Your task to perform on an android device: turn on the 24-hour format for clock Image 0: 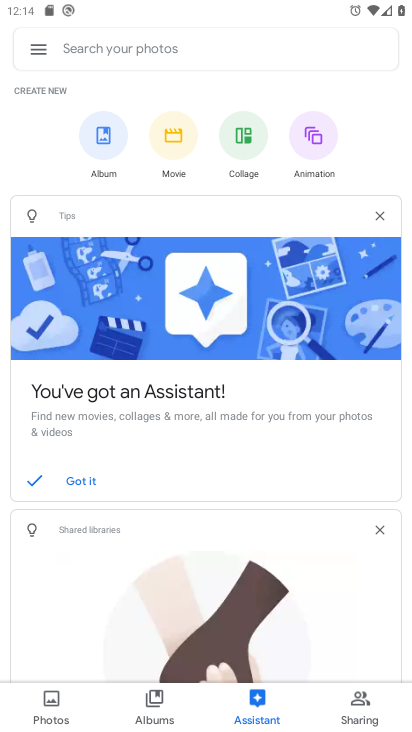
Step 0: press home button
Your task to perform on an android device: turn on the 24-hour format for clock Image 1: 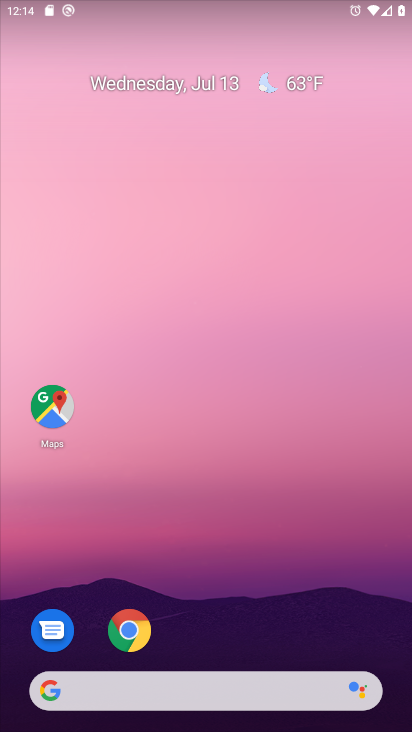
Step 1: drag from (244, 694) to (219, 72)
Your task to perform on an android device: turn on the 24-hour format for clock Image 2: 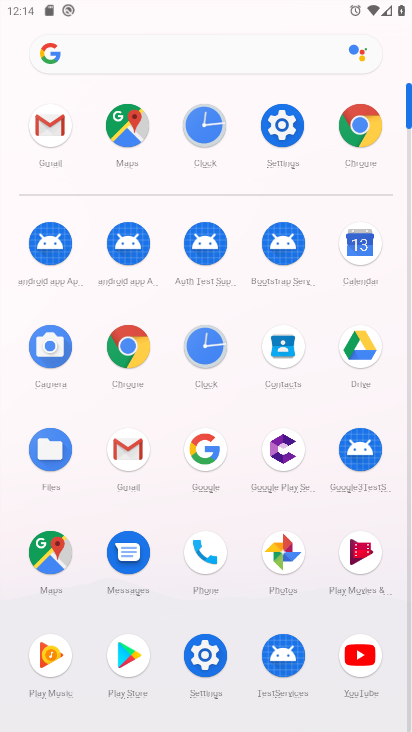
Step 2: click (289, 145)
Your task to perform on an android device: turn on the 24-hour format for clock Image 3: 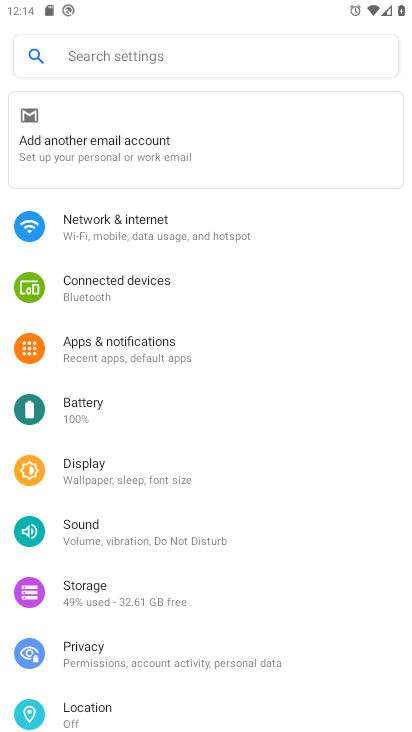
Step 3: drag from (178, 616) to (171, 62)
Your task to perform on an android device: turn on the 24-hour format for clock Image 4: 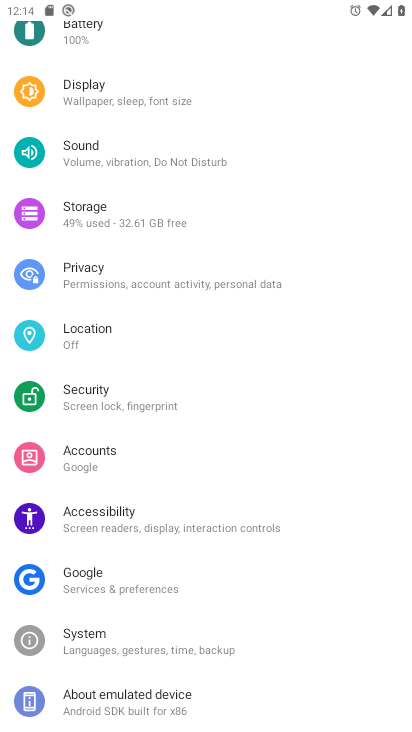
Step 4: click (144, 640)
Your task to perform on an android device: turn on the 24-hour format for clock Image 5: 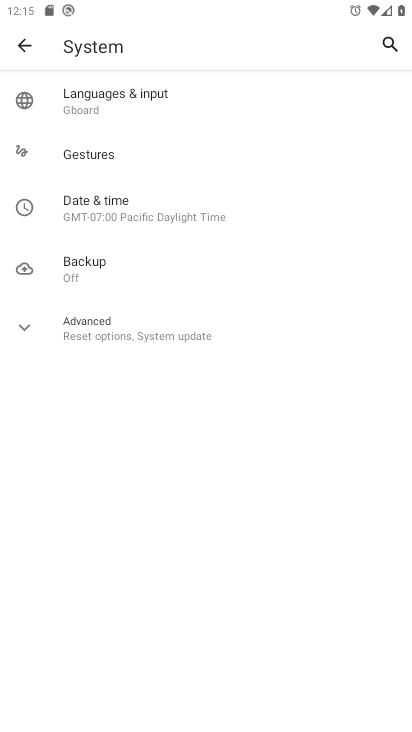
Step 5: click (142, 205)
Your task to perform on an android device: turn on the 24-hour format for clock Image 6: 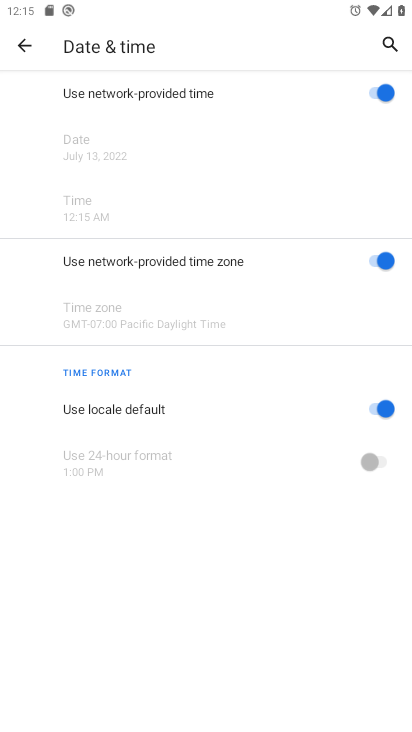
Step 6: click (375, 97)
Your task to perform on an android device: turn on the 24-hour format for clock Image 7: 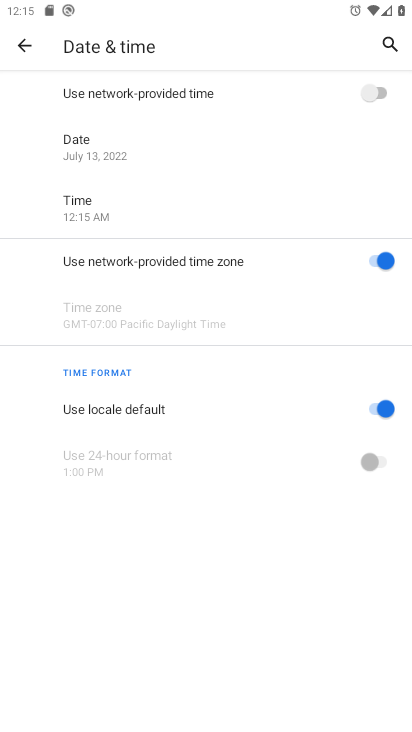
Step 7: click (377, 457)
Your task to perform on an android device: turn on the 24-hour format for clock Image 8: 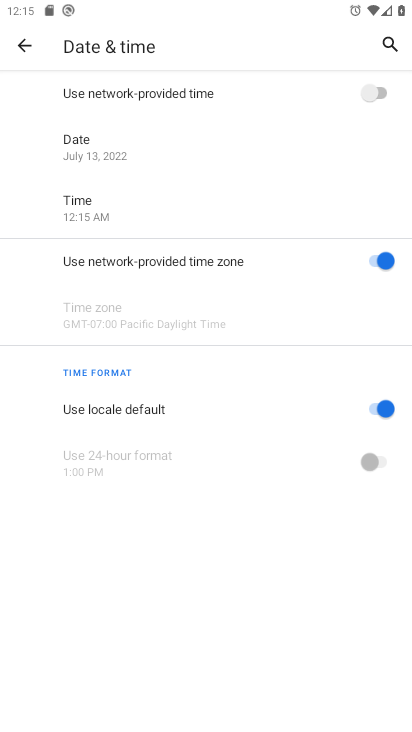
Step 8: click (381, 402)
Your task to perform on an android device: turn on the 24-hour format for clock Image 9: 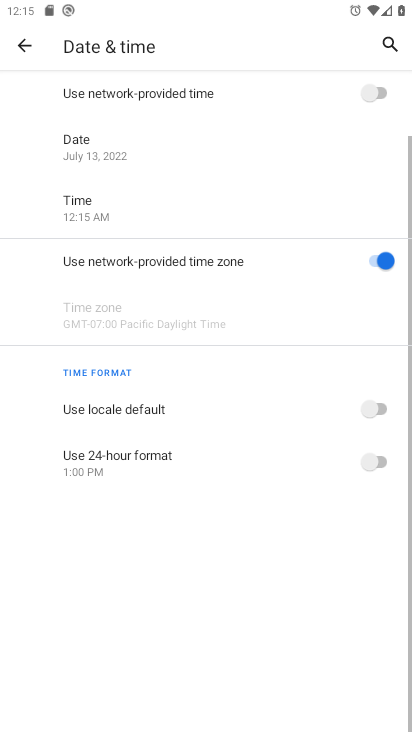
Step 9: click (378, 468)
Your task to perform on an android device: turn on the 24-hour format for clock Image 10: 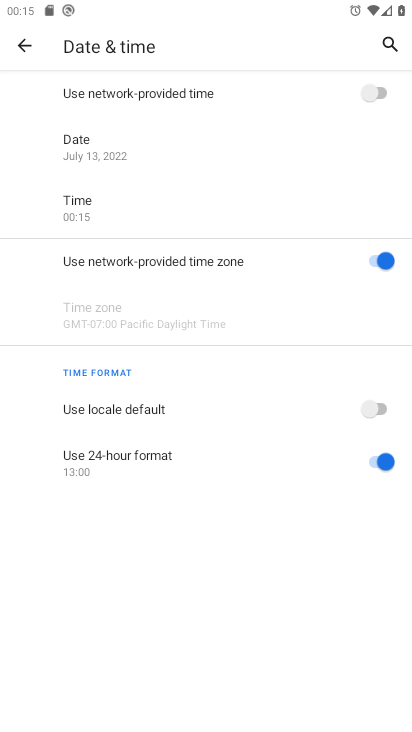
Step 10: task complete